Your task to perform on an android device: What's the weather? Image 0: 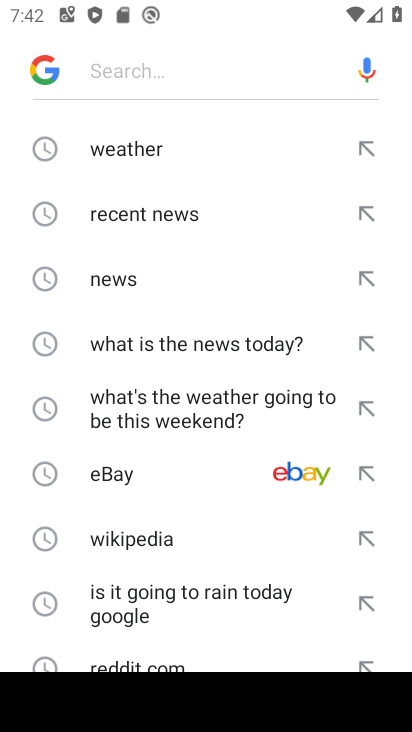
Step 0: press home button
Your task to perform on an android device: What's the weather? Image 1: 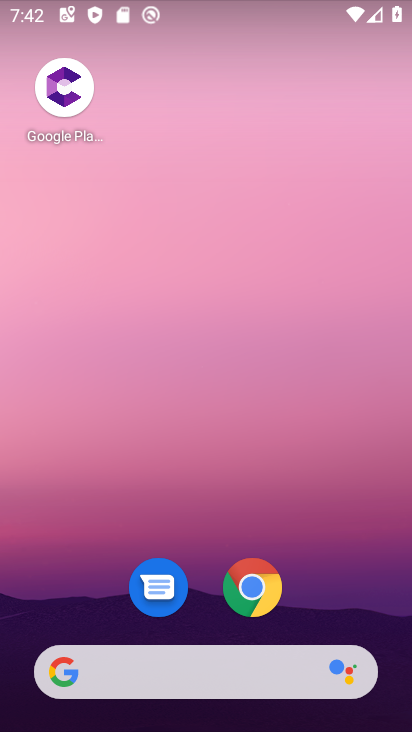
Step 1: drag from (335, 555) to (306, 170)
Your task to perform on an android device: What's the weather? Image 2: 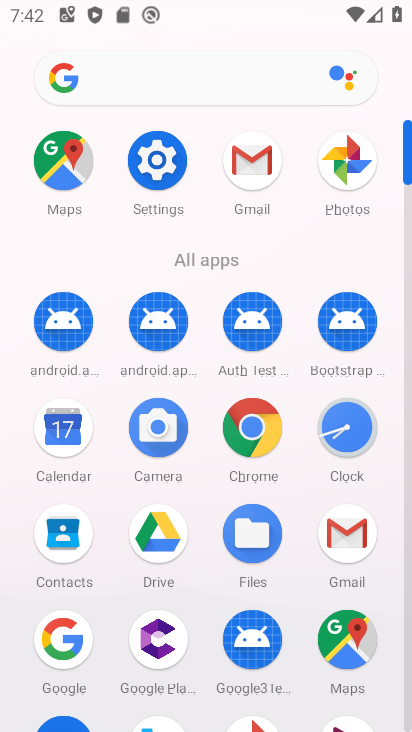
Step 2: click (253, 434)
Your task to perform on an android device: What's the weather? Image 3: 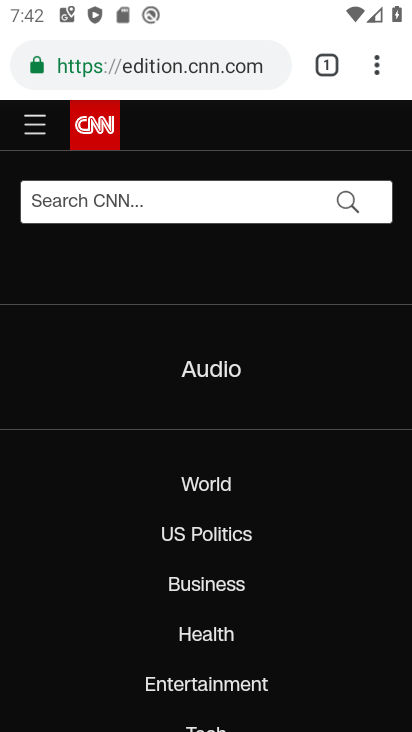
Step 3: click (236, 77)
Your task to perform on an android device: What's the weather? Image 4: 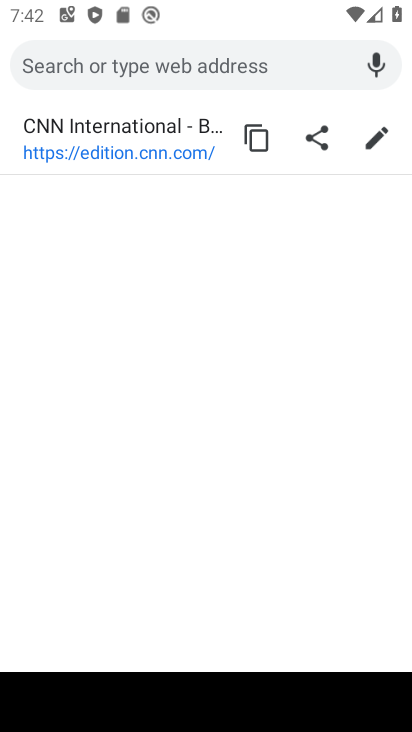
Step 4: type "weather"
Your task to perform on an android device: What's the weather? Image 5: 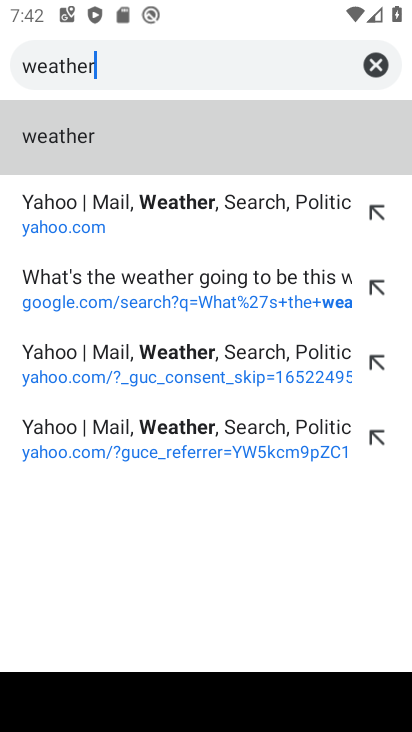
Step 5: click (55, 131)
Your task to perform on an android device: What's the weather? Image 6: 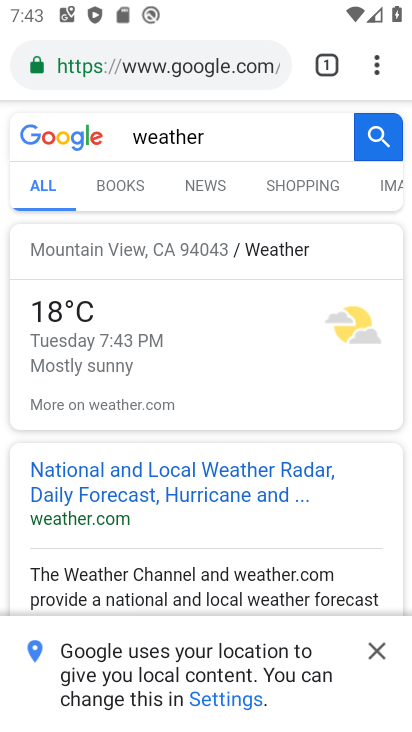
Step 6: task complete